Your task to perform on an android device: uninstall "Cash App" Image 0: 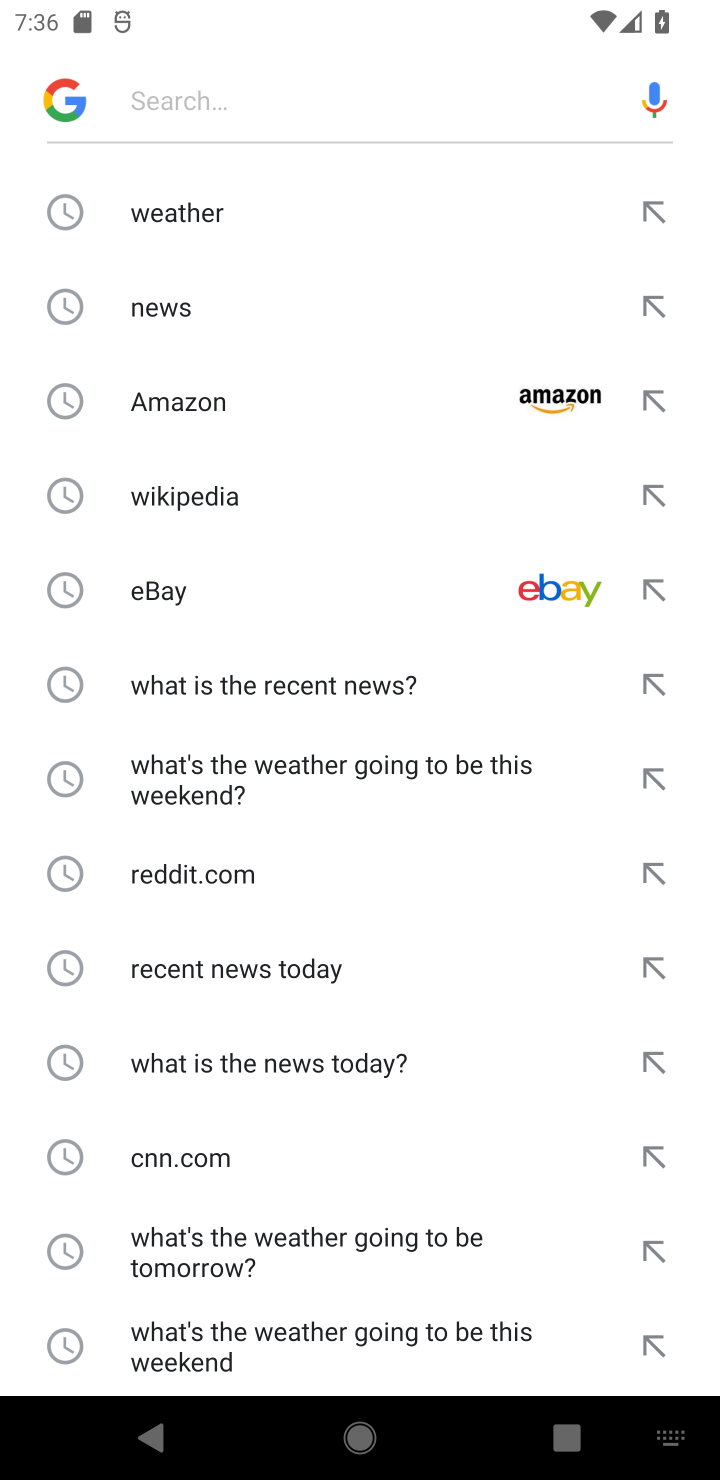
Step 0: press home button
Your task to perform on an android device: uninstall "Cash App" Image 1: 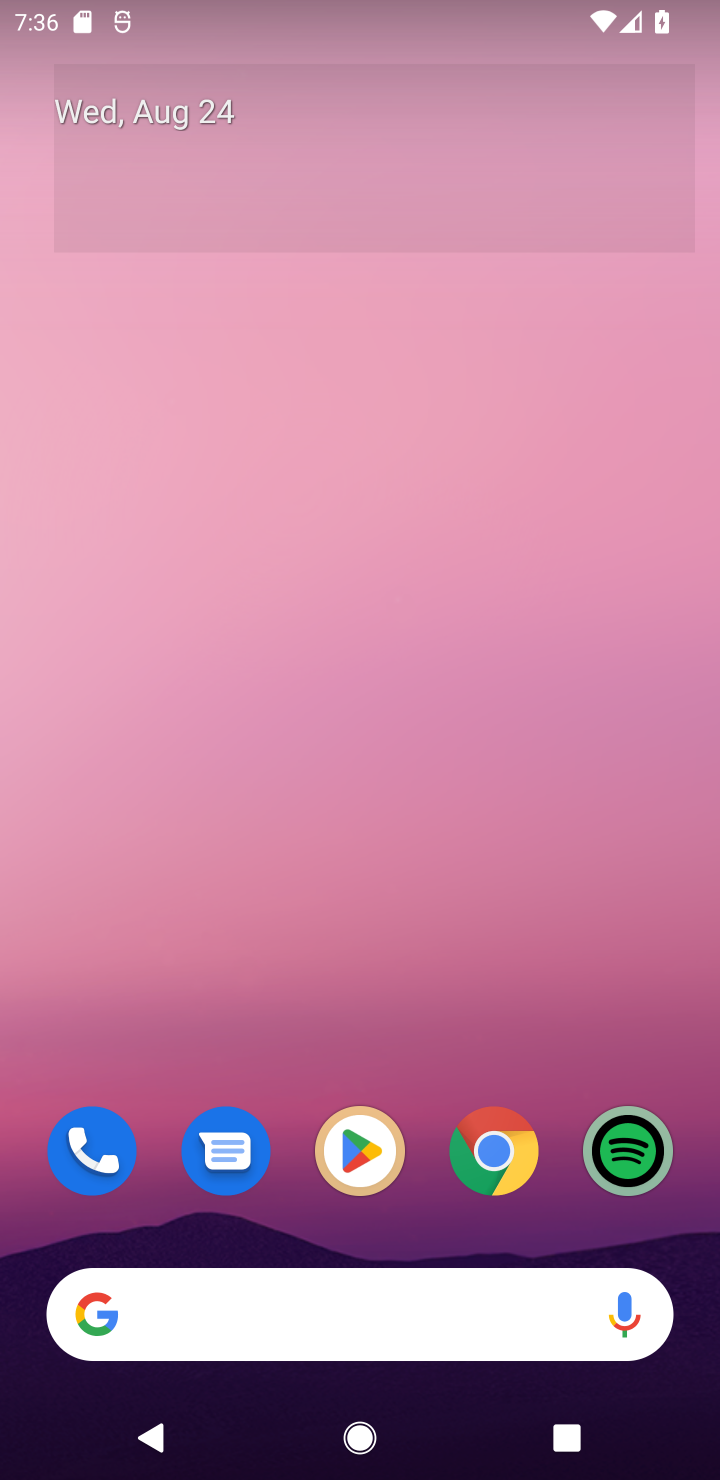
Step 1: click (364, 1156)
Your task to perform on an android device: uninstall "Cash App" Image 2: 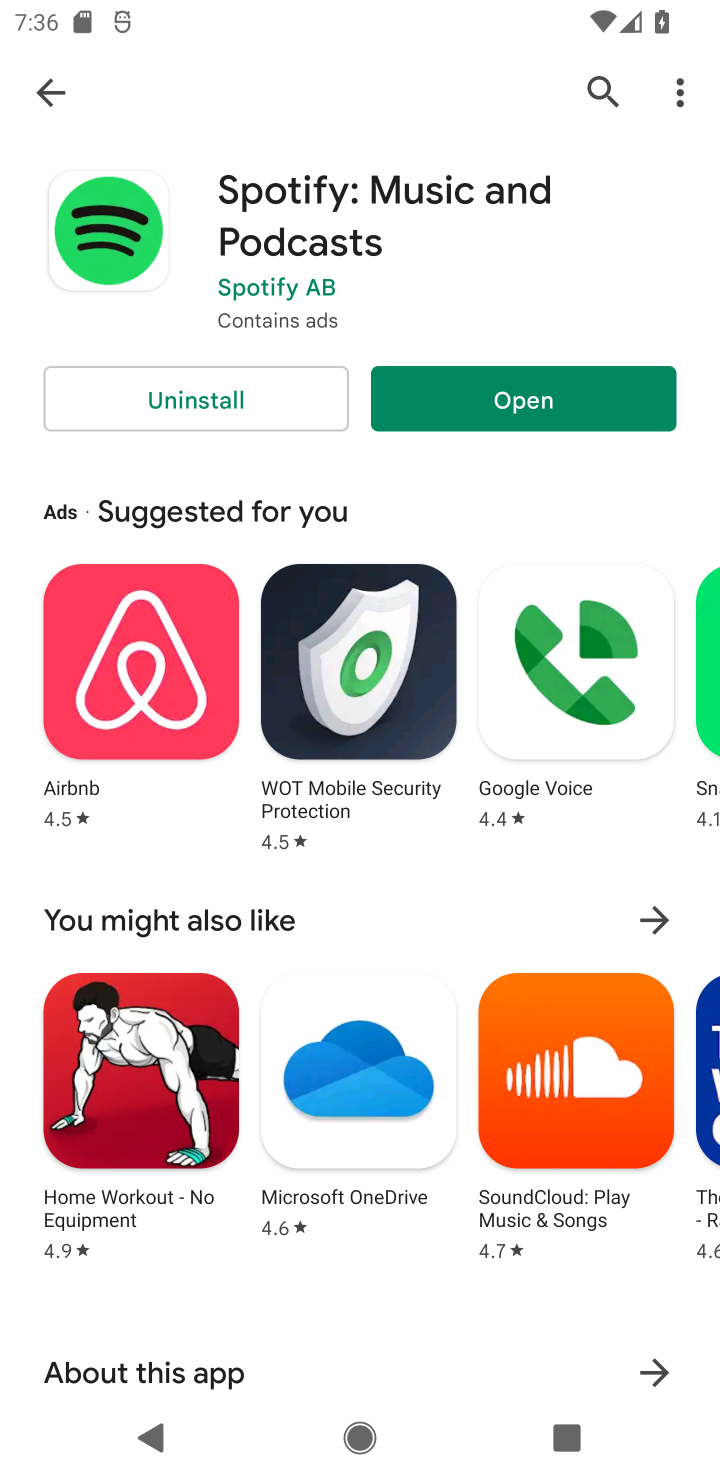
Step 2: click (599, 87)
Your task to perform on an android device: uninstall "Cash App" Image 3: 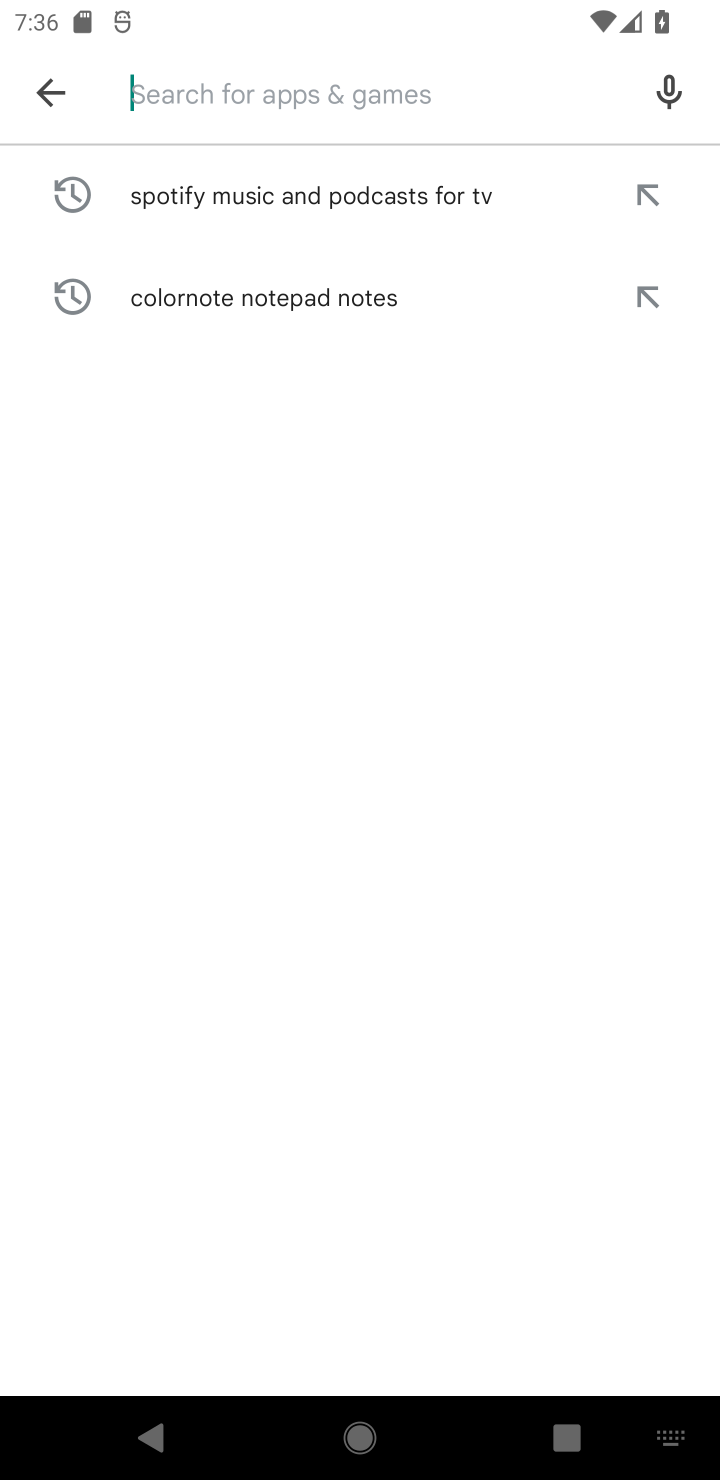
Step 3: type "Cash App"
Your task to perform on an android device: uninstall "Cash App" Image 4: 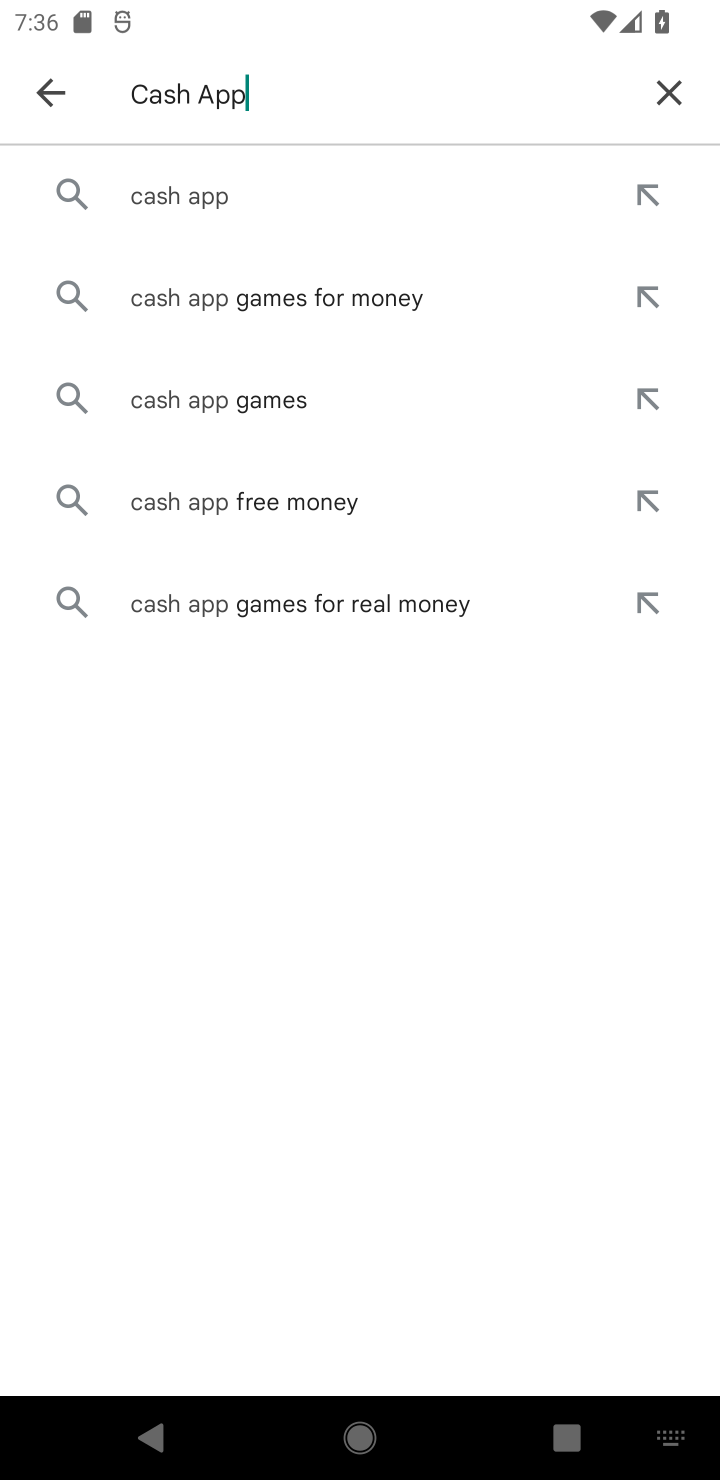
Step 4: click (153, 191)
Your task to perform on an android device: uninstall "Cash App" Image 5: 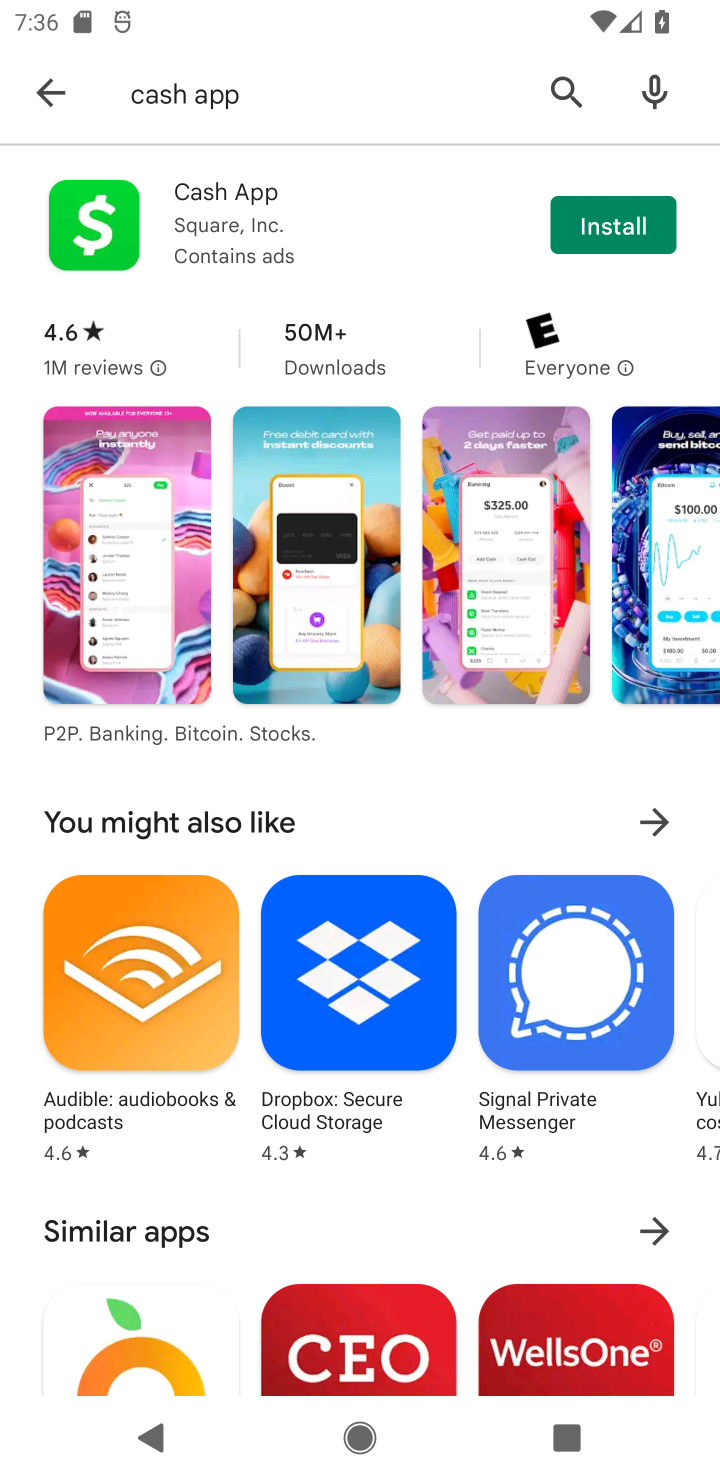
Step 5: click (188, 199)
Your task to perform on an android device: uninstall "Cash App" Image 6: 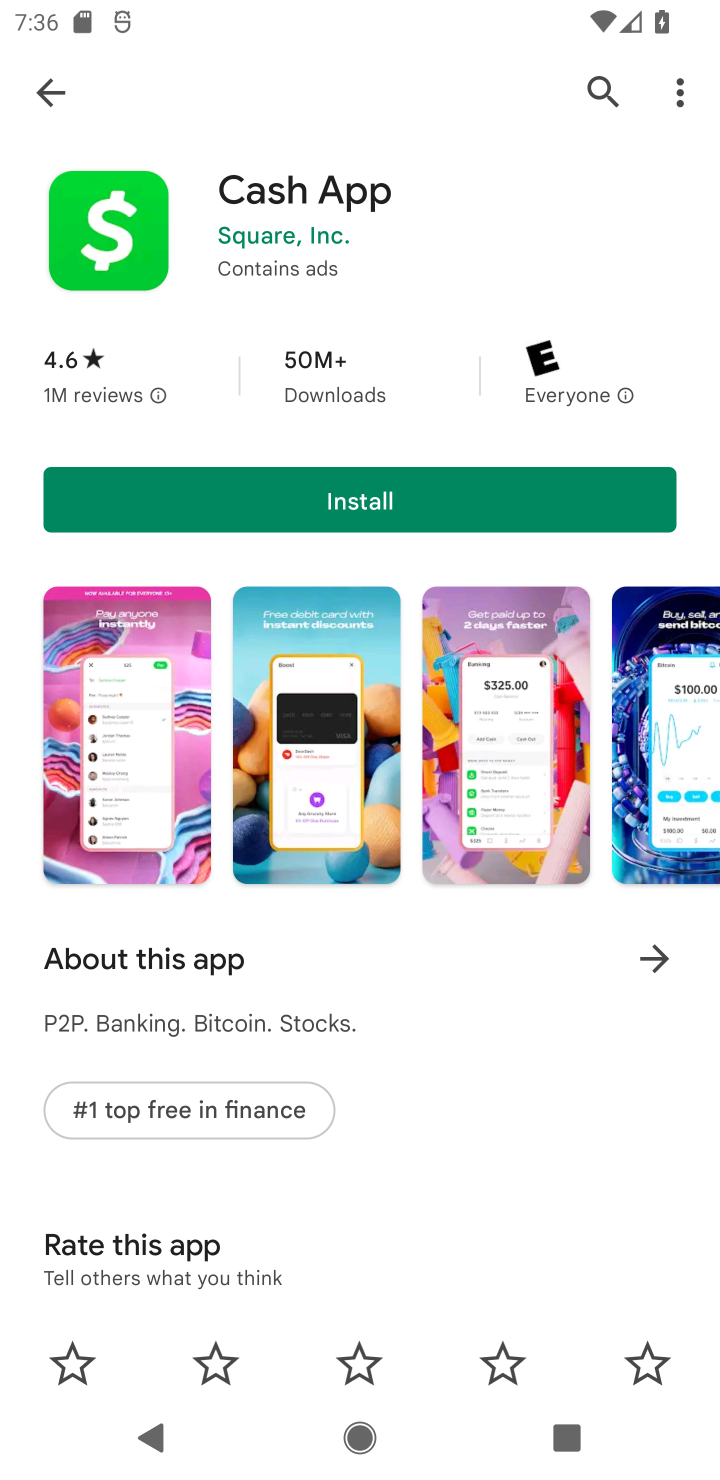
Step 6: task complete